Your task to perform on an android device: delete a single message in the gmail app Image 0: 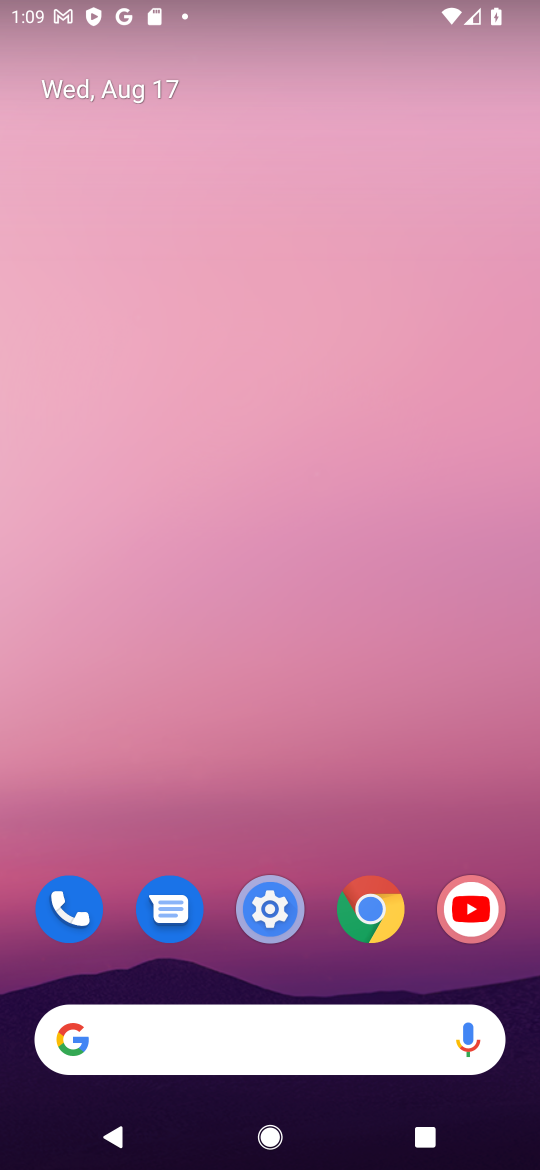
Step 0: drag from (288, 819) to (382, 367)
Your task to perform on an android device: delete a single message in the gmail app Image 1: 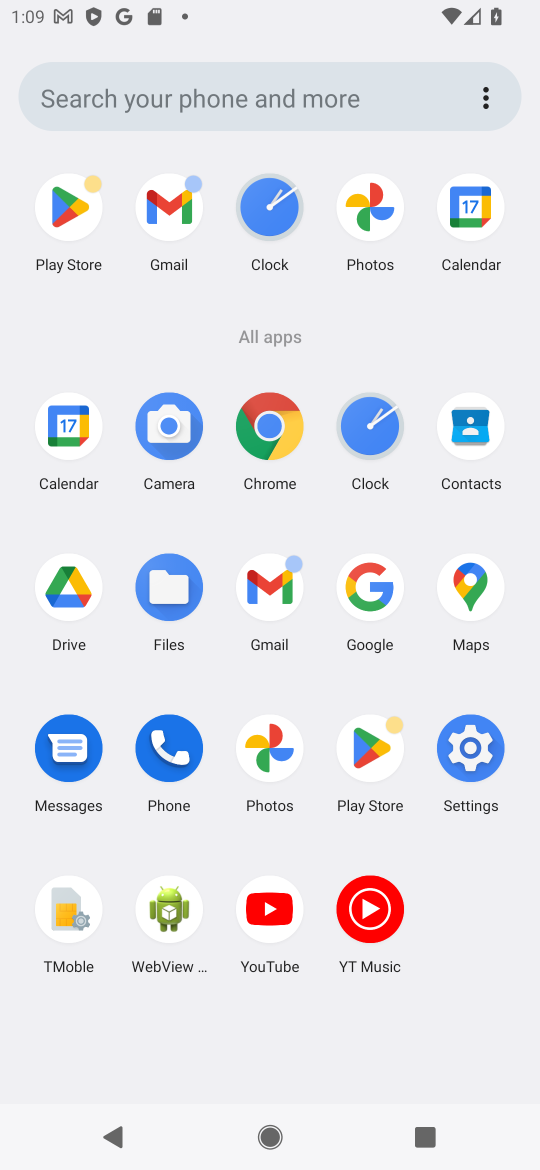
Step 1: click (282, 572)
Your task to perform on an android device: delete a single message in the gmail app Image 2: 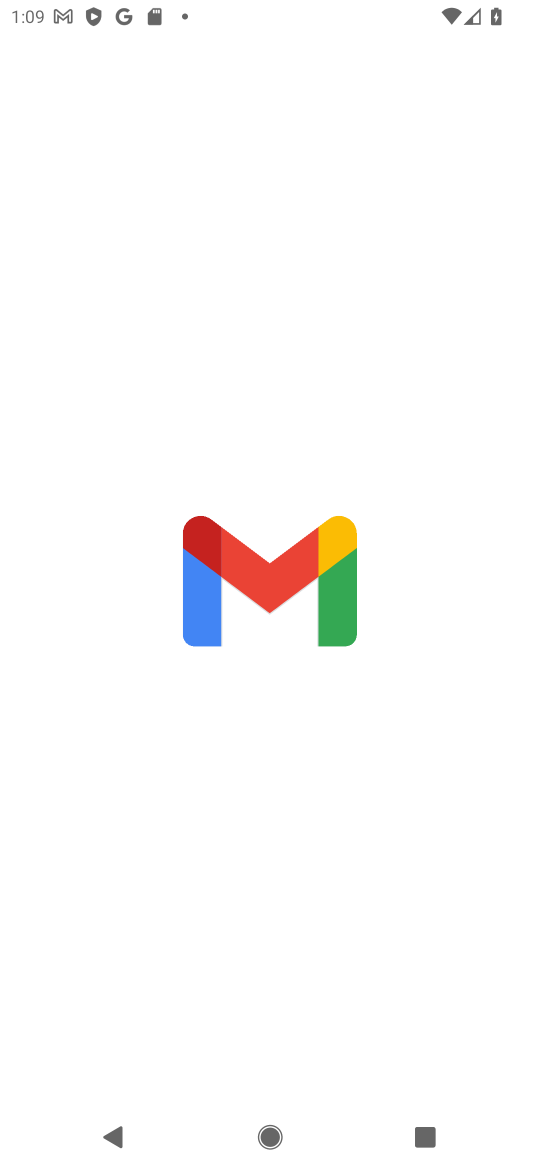
Step 2: task complete